Your task to perform on an android device: turn pop-ups off in chrome Image 0: 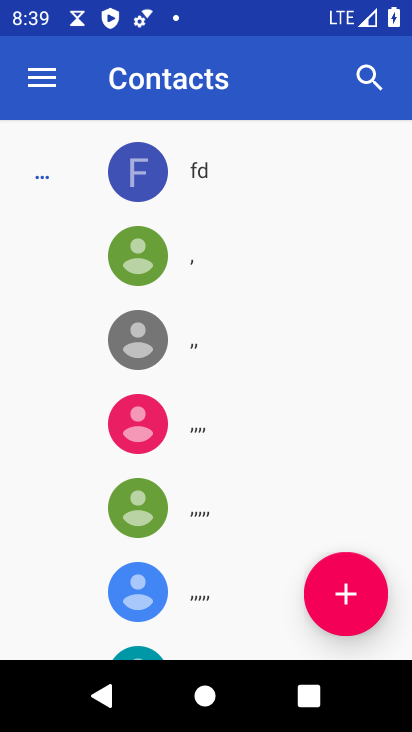
Step 0: press home button
Your task to perform on an android device: turn pop-ups off in chrome Image 1: 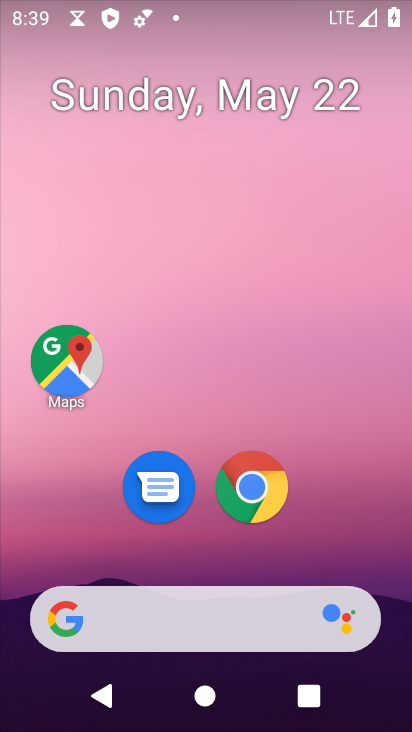
Step 1: drag from (379, 324) to (409, 88)
Your task to perform on an android device: turn pop-ups off in chrome Image 2: 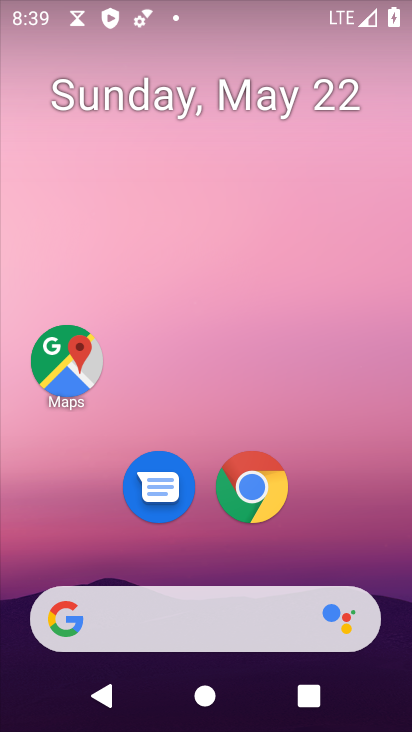
Step 2: click (281, 503)
Your task to perform on an android device: turn pop-ups off in chrome Image 3: 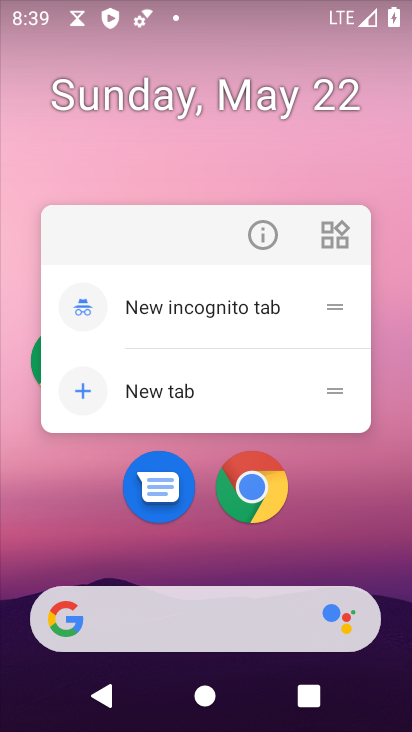
Step 3: click (281, 502)
Your task to perform on an android device: turn pop-ups off in chrome Image 4: 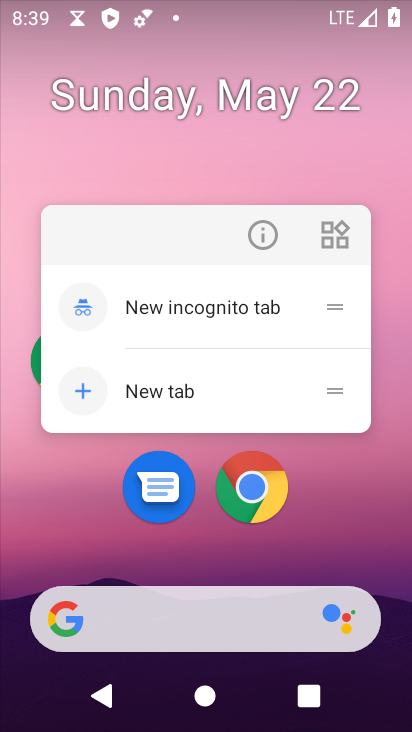
Step 4: click (276, 497)
Your task to perform on an android device: turn pop-ups off in chrome Image 5: 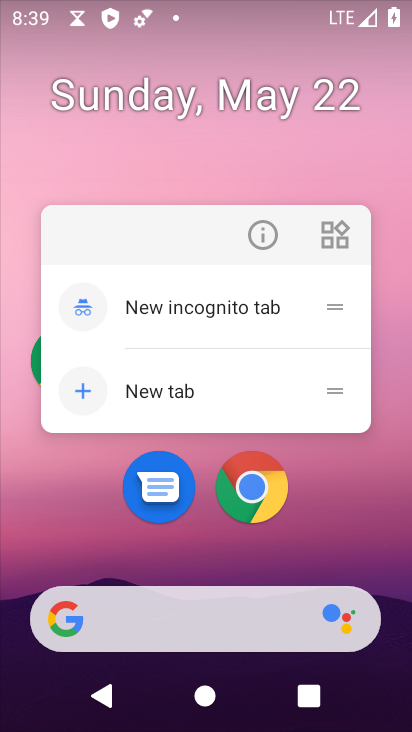
Step 5: click (348, 550)
Your task to perform on an android device: turn pop-ups off in chrome Image 6: 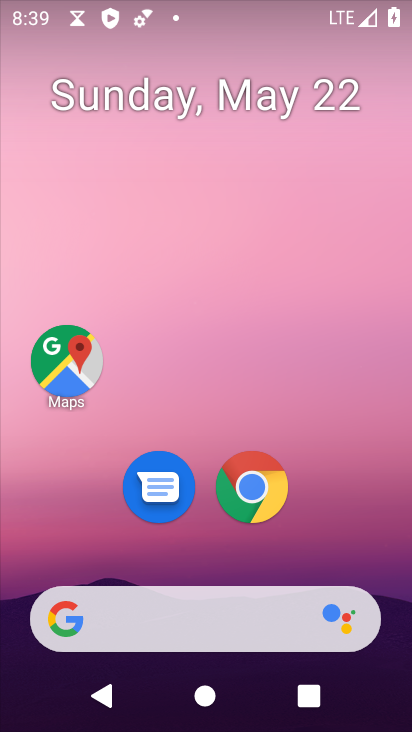
Step 6: drag from (346, 545) to (381, 0)
Your task to perform on an android device: turn pop-ups off in chrome Image 7: 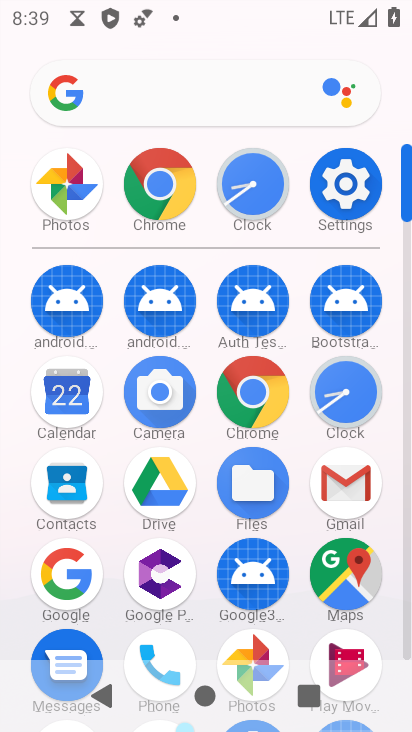
Step 7: click (170, 189)
Your task to perform on an android device: turn pop-ups off in chrome Image 8: 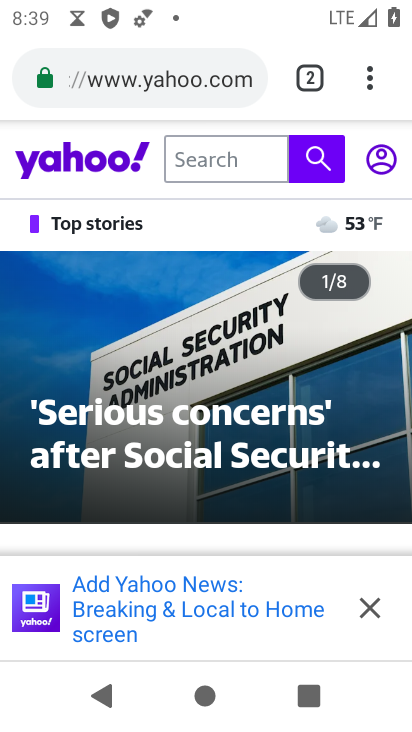
Step 8: drag from (370, 79) to (130, 550)
Your task to perform on an android device: turn pop-ups off in chrome Image 9: 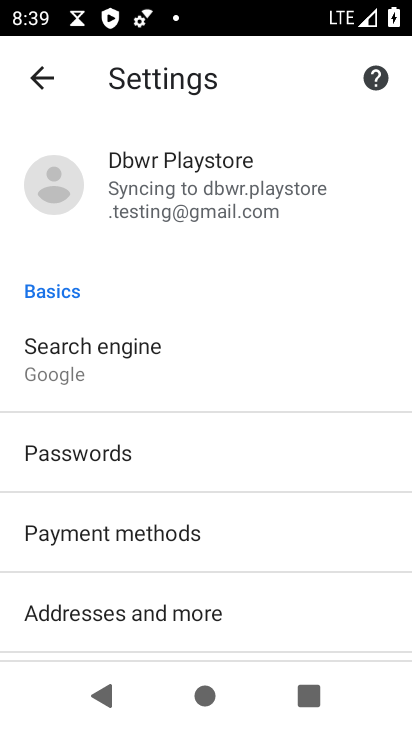
Step 9: drag from (134, 520) to (165, 174)
Your task to perform on an android device: turn pop-ups off in chrome Image 10: 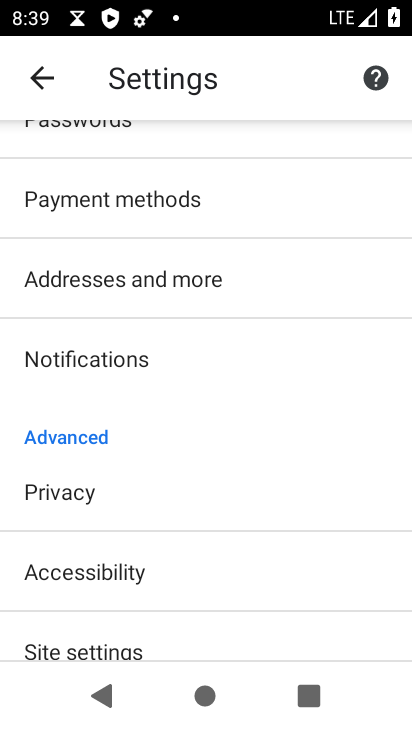
Step 10: drag from (112, 553) to (84, 283)
Your task to perform on an android device: turn pop-ups off in chrome Image 11: 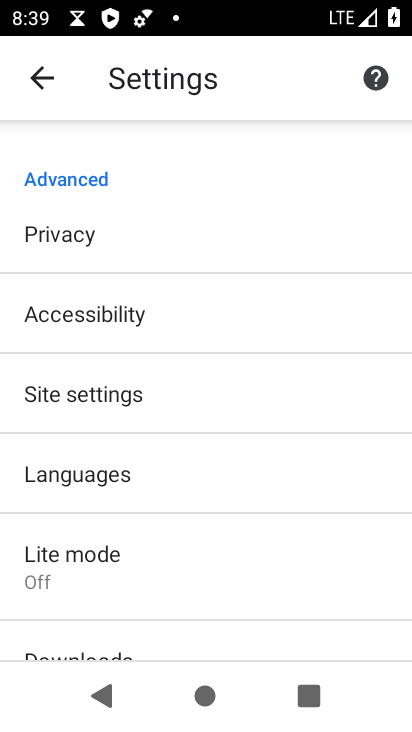
Step 11: click (130, 385)
Your task to perform on an android device: turn pop-ups off in chrome Image 12: 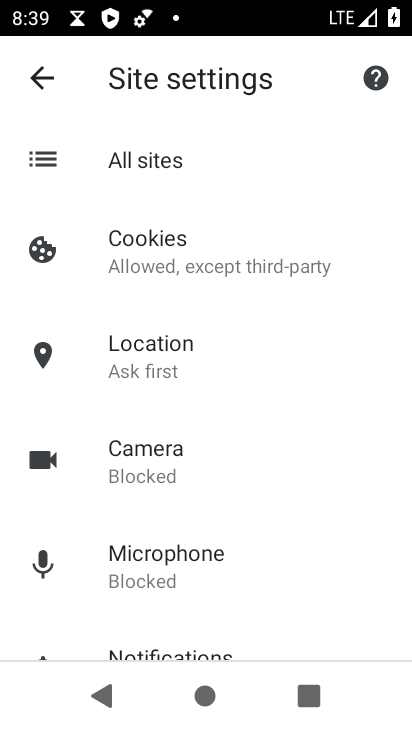
Step 12: drag from (265, 642) to (250, 241)
Your task to perform on an android device: turn pop-ups off in chrome Image 13: 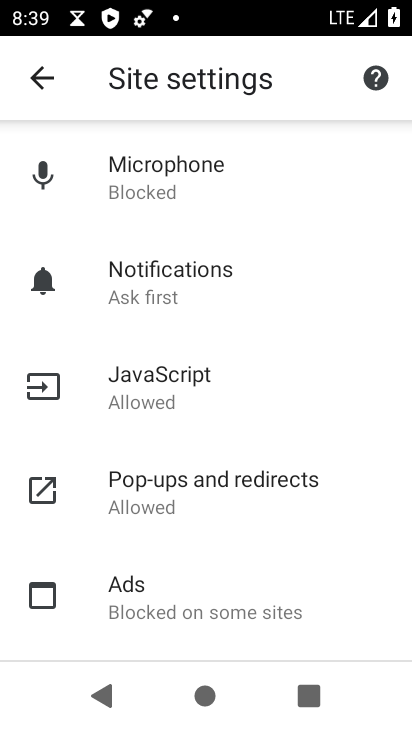
Step 13: click (226, 511)
Your task to perform on an android device: turn pop-ups off in chrome Image 14: 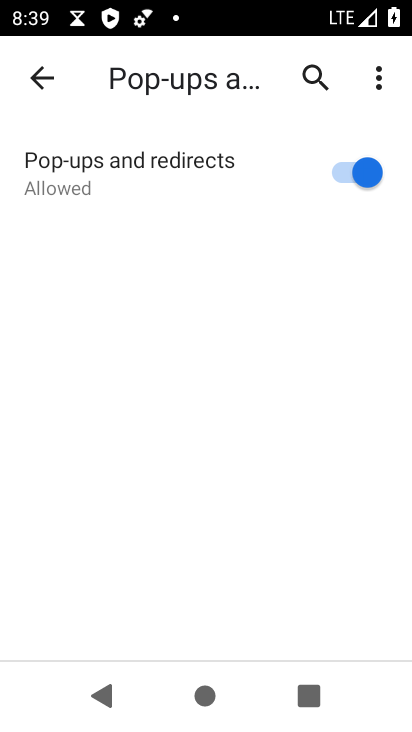
Step 14: click (362, 188)
Your task to perform on an android device: turn pop-ups off in chrome Image 15: 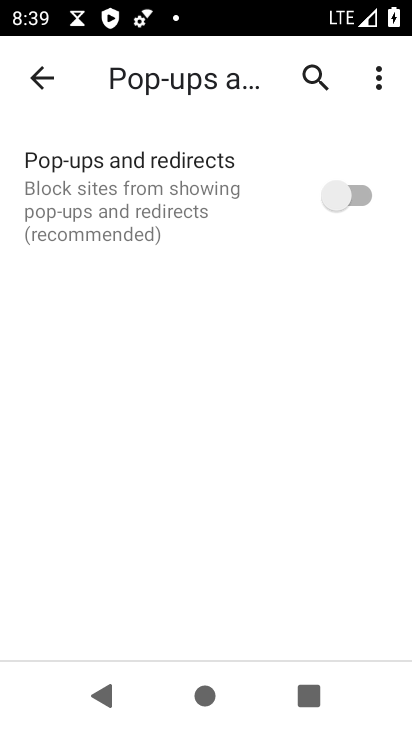
Step 15: task complete